Your task to perform on an android device: all mails in gmail Image 0: 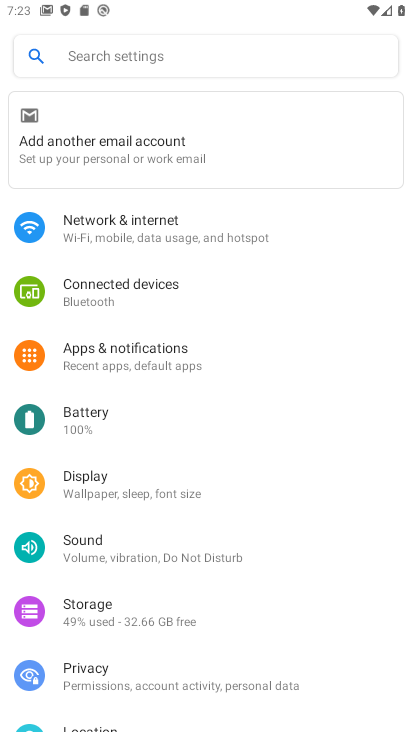
Step 0: press home button
Your task to perform on an android device: all mails in gmail Image 1: 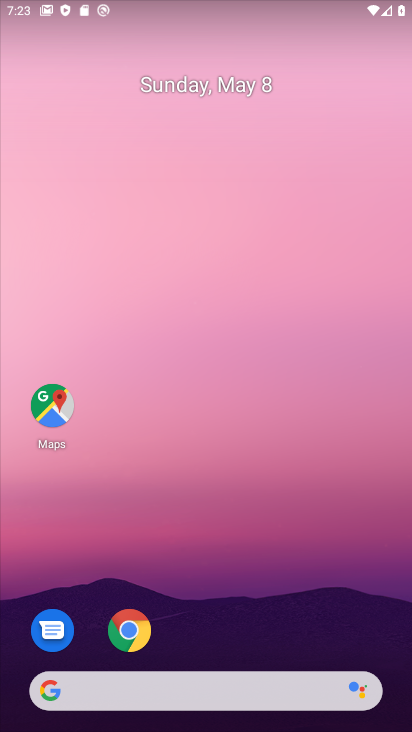
Step 1: drag from (202, 635) to (140, 33)
Your task to perform on an android device: all mails in gmail Image 2: 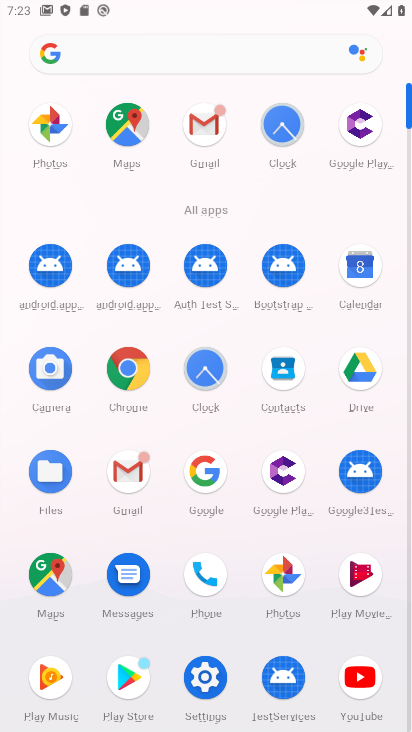
Step 2: click (211, 109)
Your task to perform on an android device: all mails in gmail Image 3: 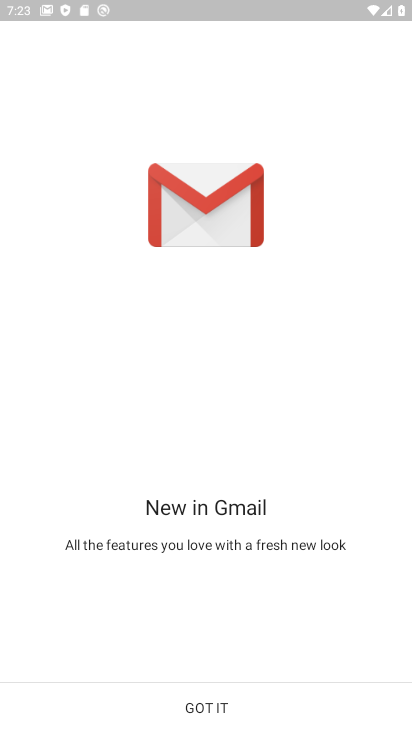
Step 3: click (213, 706)
Your task to perform on an android device: all mails in gmail Image 4: 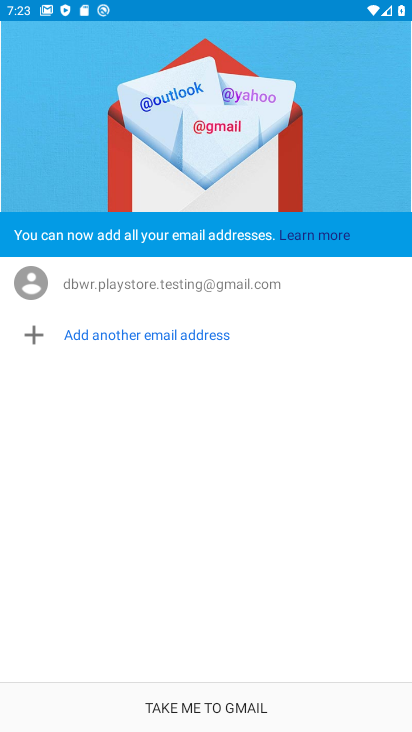
Step 4: click (213, 706)
Your task to perform on an android device: all mails in gmail Image 5: 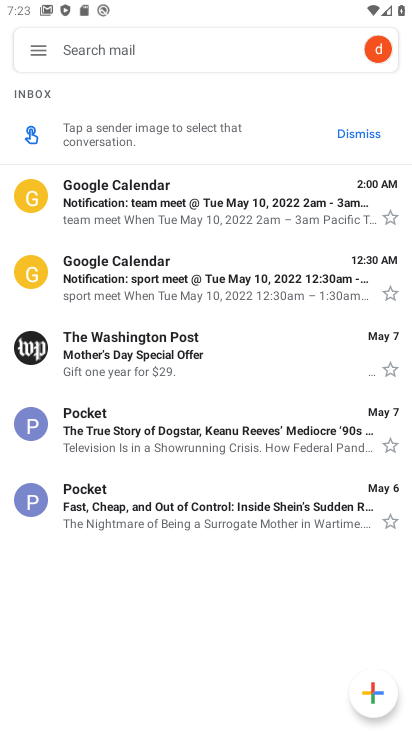
Step 5: click (39, 46)
Your task to perform on an android device: all mails in gmail Image 6: 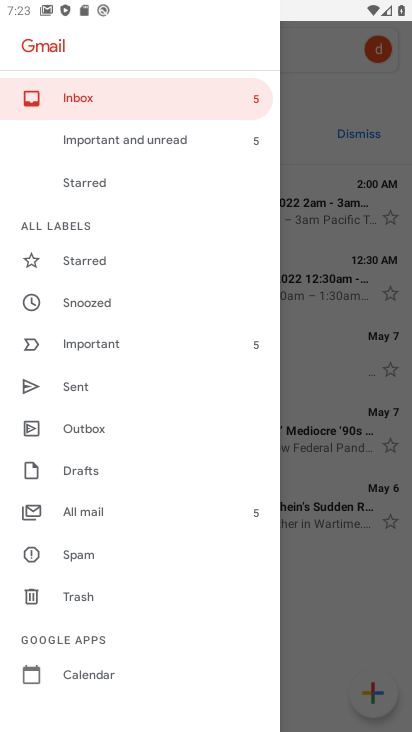
Step 6: click (169, 511)
Your task to perform on an android device: all mails in gmail Image 7: 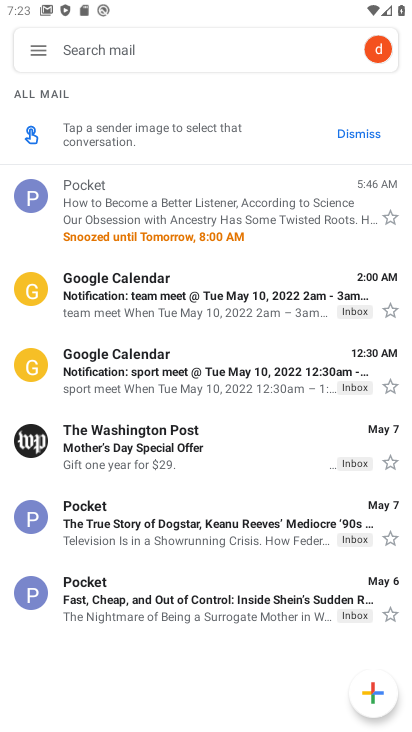
Step 7: task complete